Your task to perform on an android device: Open Chrome and go to settings Image 0: 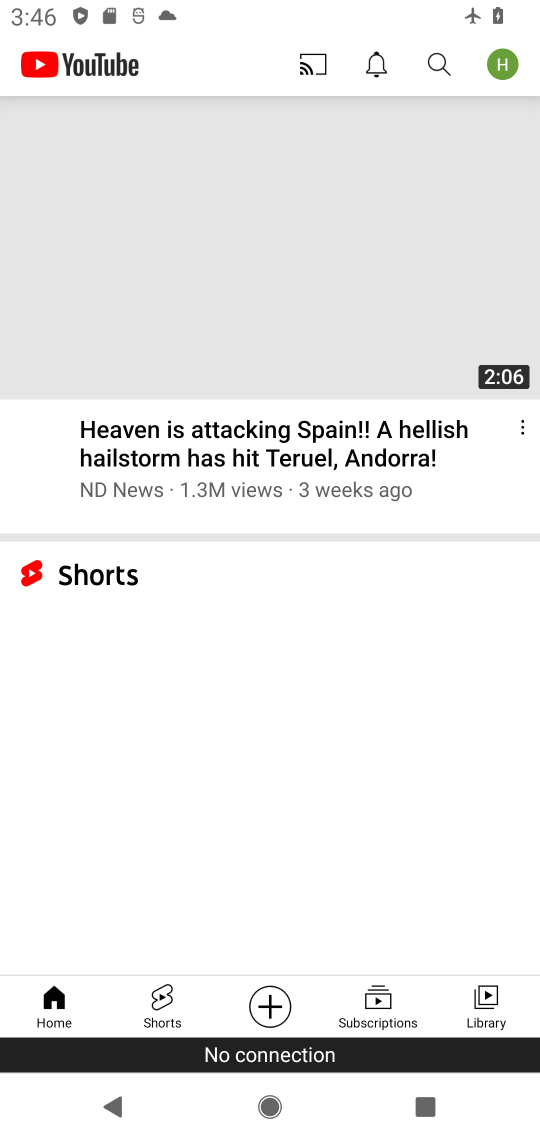
Step 0: press home button
Your task to perform on an android device: Open Chrome and go to settings Image 1: 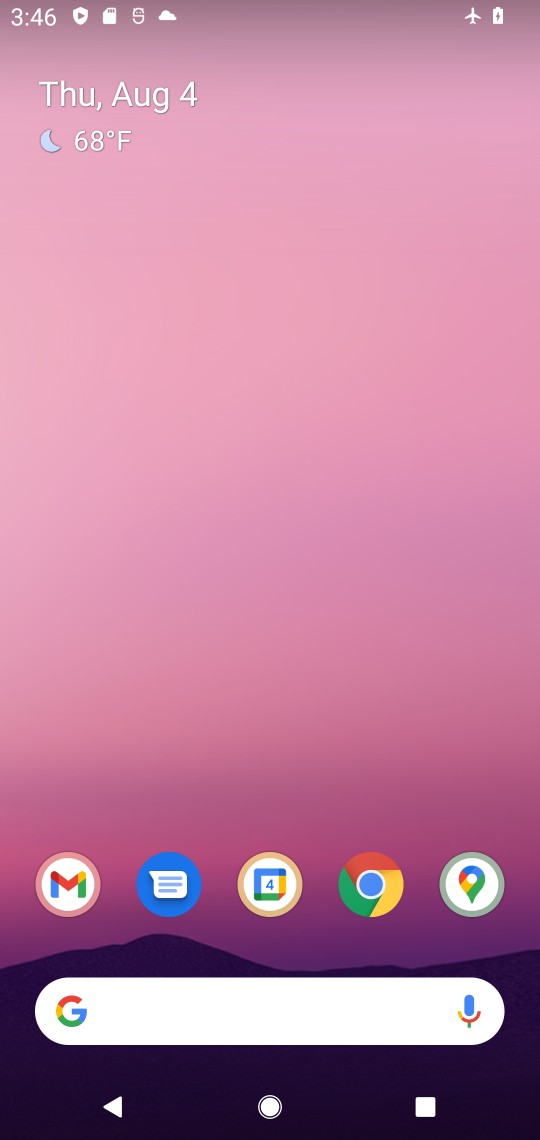
Step 1: click (387, 878)
Your task to perform on an android device: Open Chrome and go to settings Image 2: 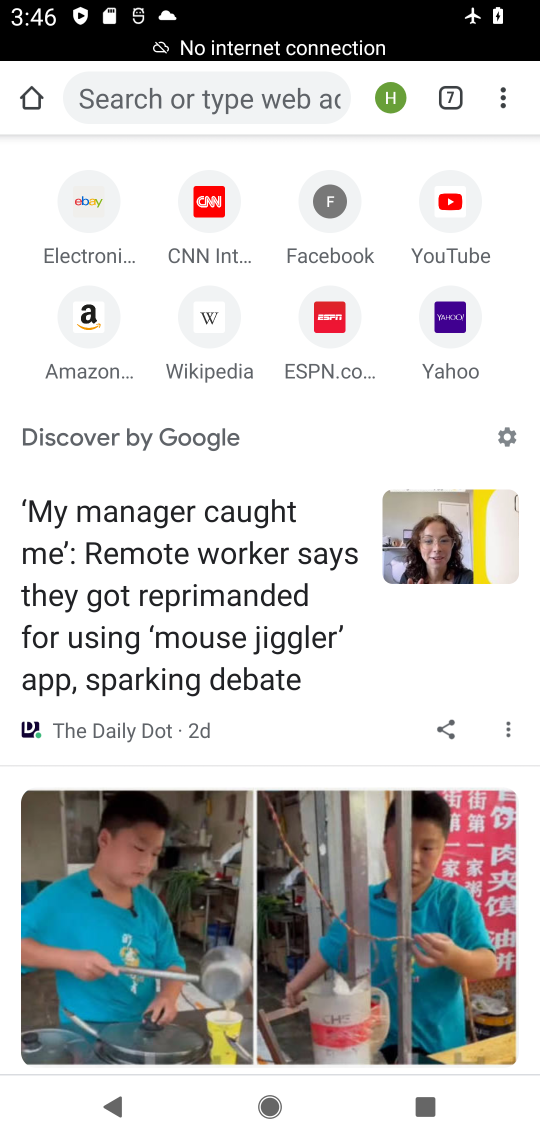
Step 2: click (510, 94)
Your task to perform on an android device: Open Chrome and go to settings Image 3: 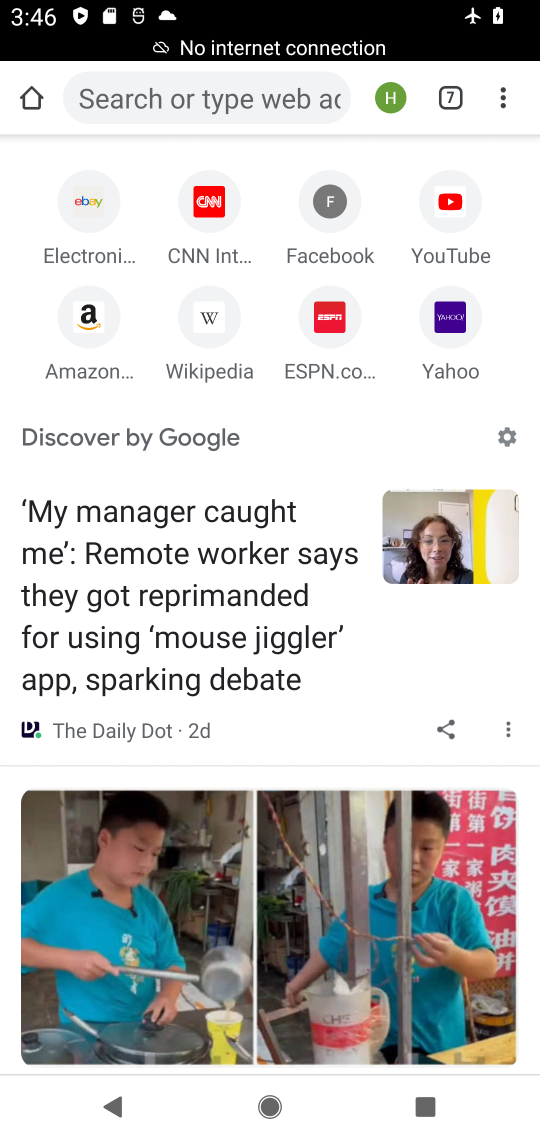
Step 3: click (510, 94)
Your task to perform on an android device: Open Chrome and go to settings Image 4: 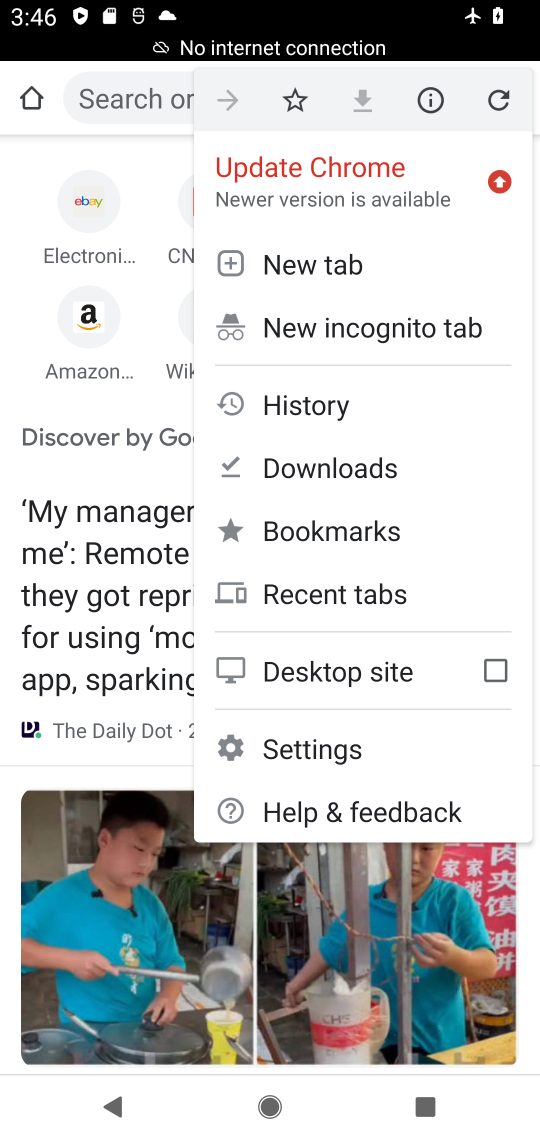
Step 4: click (281, 738)
Your task to perform on an android device: Open Chrome and go to settings Image 5: 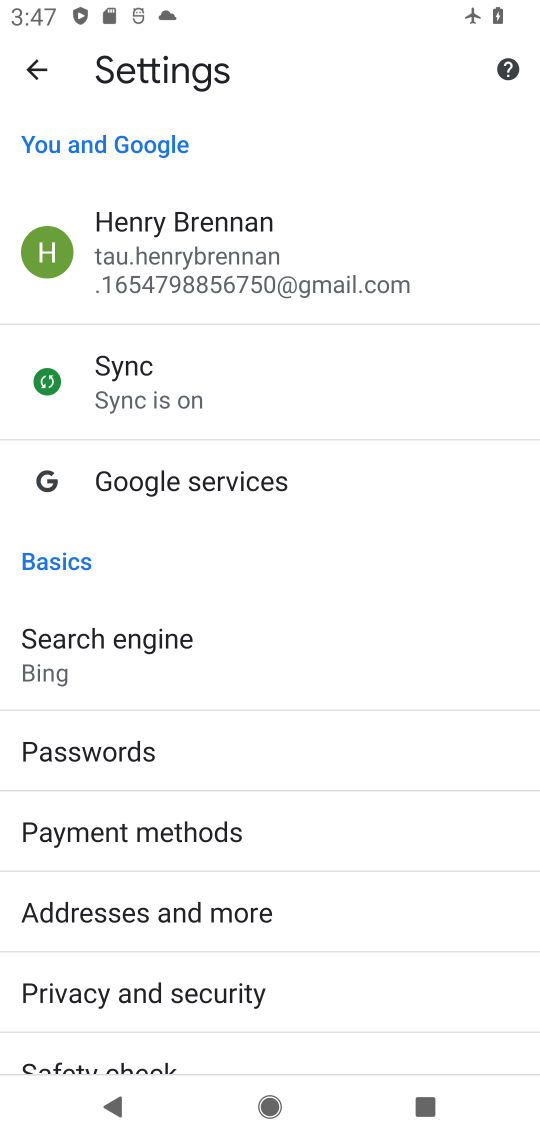
Step 5: task complete